Your task to perform on an android device: Go to settings Image 0: 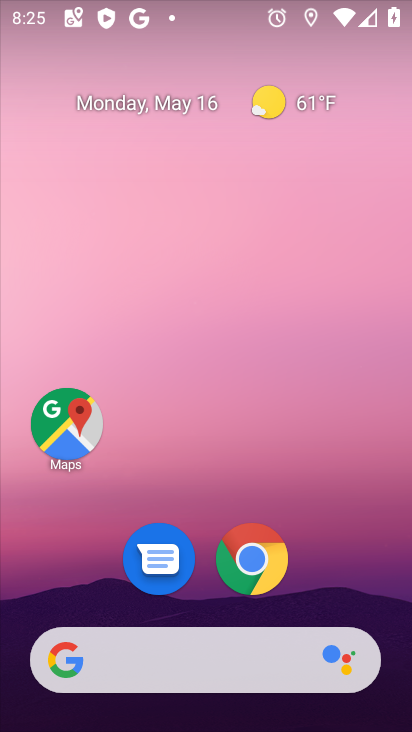
Step 0: drag from (369, 585) to (348, 18)
Your task to perform on an android device: Go to settings Image 1: 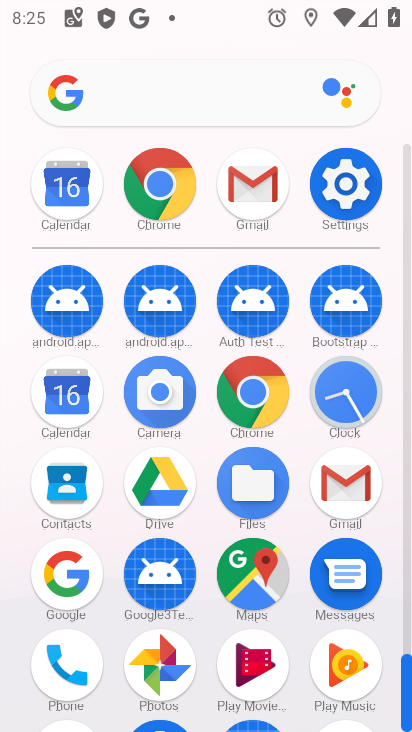
Step 1: click (340, 210)
Your task to perform on an android device: Go to settings Image 2: 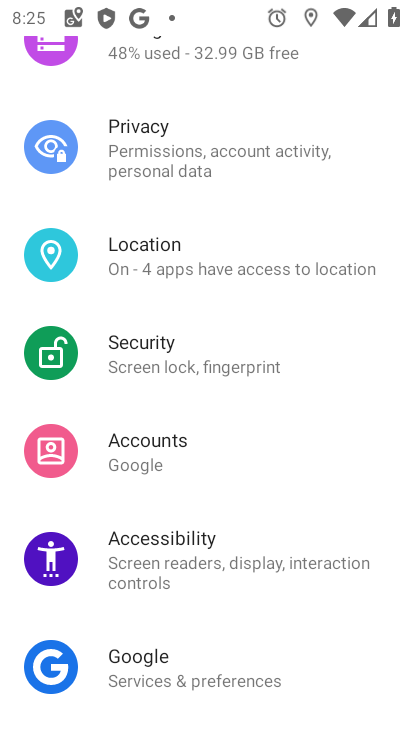
Step 2: task complete